Your task to perform on an android device: open app "File Manager" (install if not already installed) Image 0: 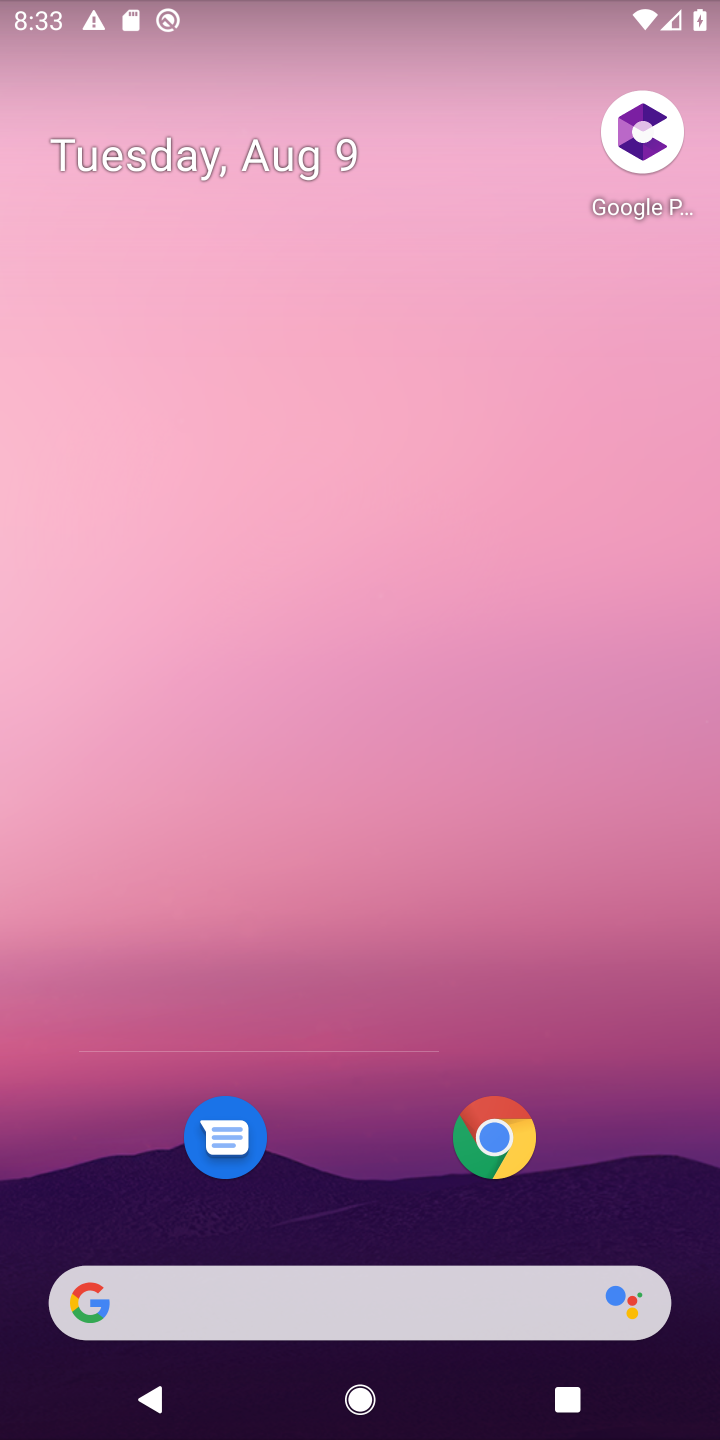
Step 0: press home button
Your task to perform on an android device: open app "File Manager" (install if not already installed) Image 1: 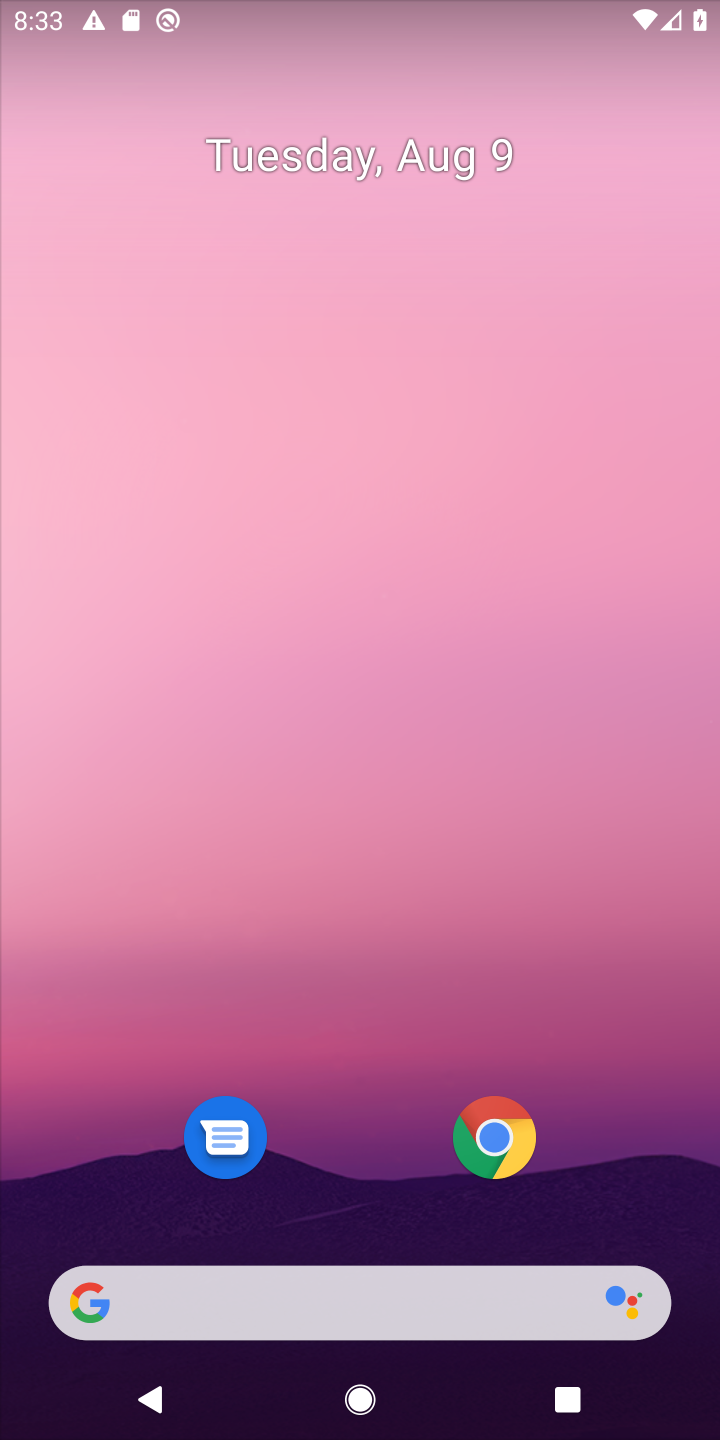
Step 1: drag from (581, 895) to (620, 107)
Your task to perform on an android device: open app "File Manager" (install if not already installed) Image 2: 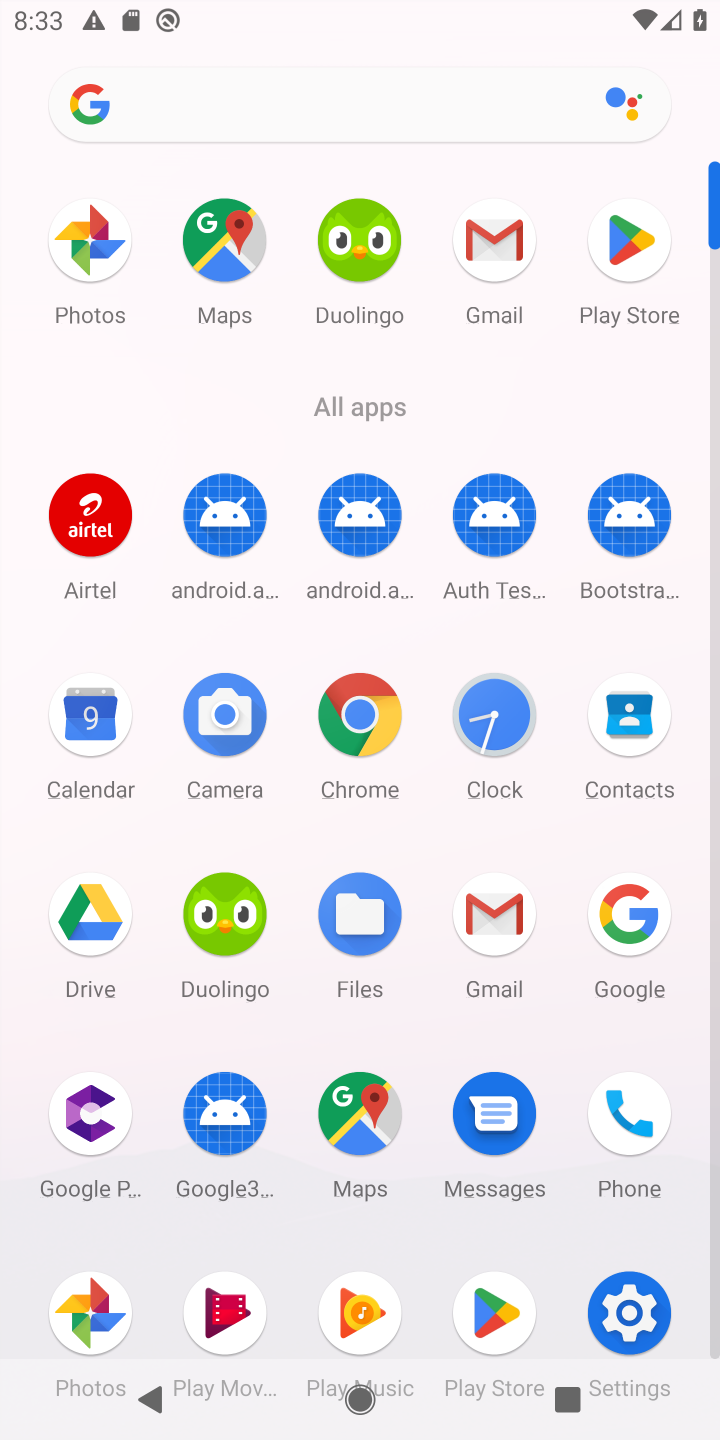
Step 2: click (617, 232)
Your task to perform on an android device: open app "File Manager" (install if not already installed) Image 3: 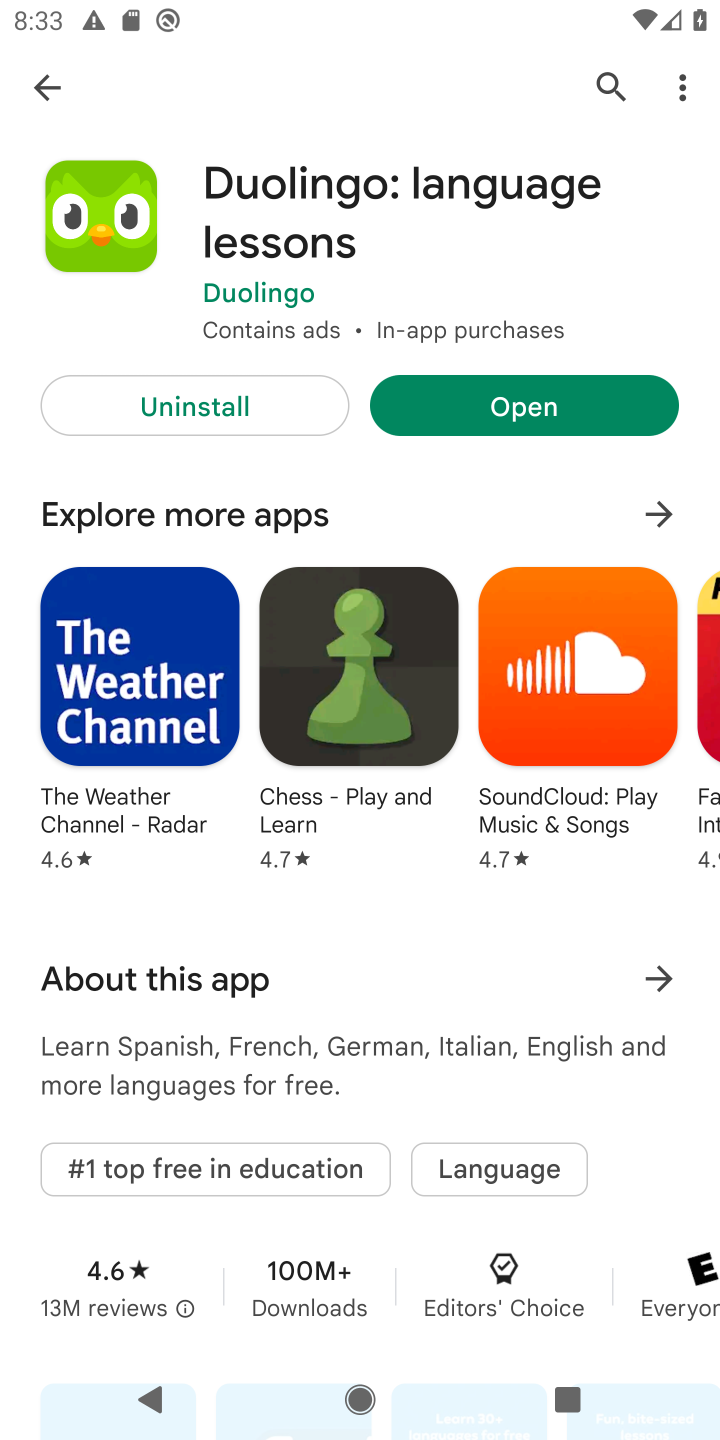
Step 3: click (601, 90)
Your task to perform on an android device: open app "File Manager" (install if not already installed) Image 4: 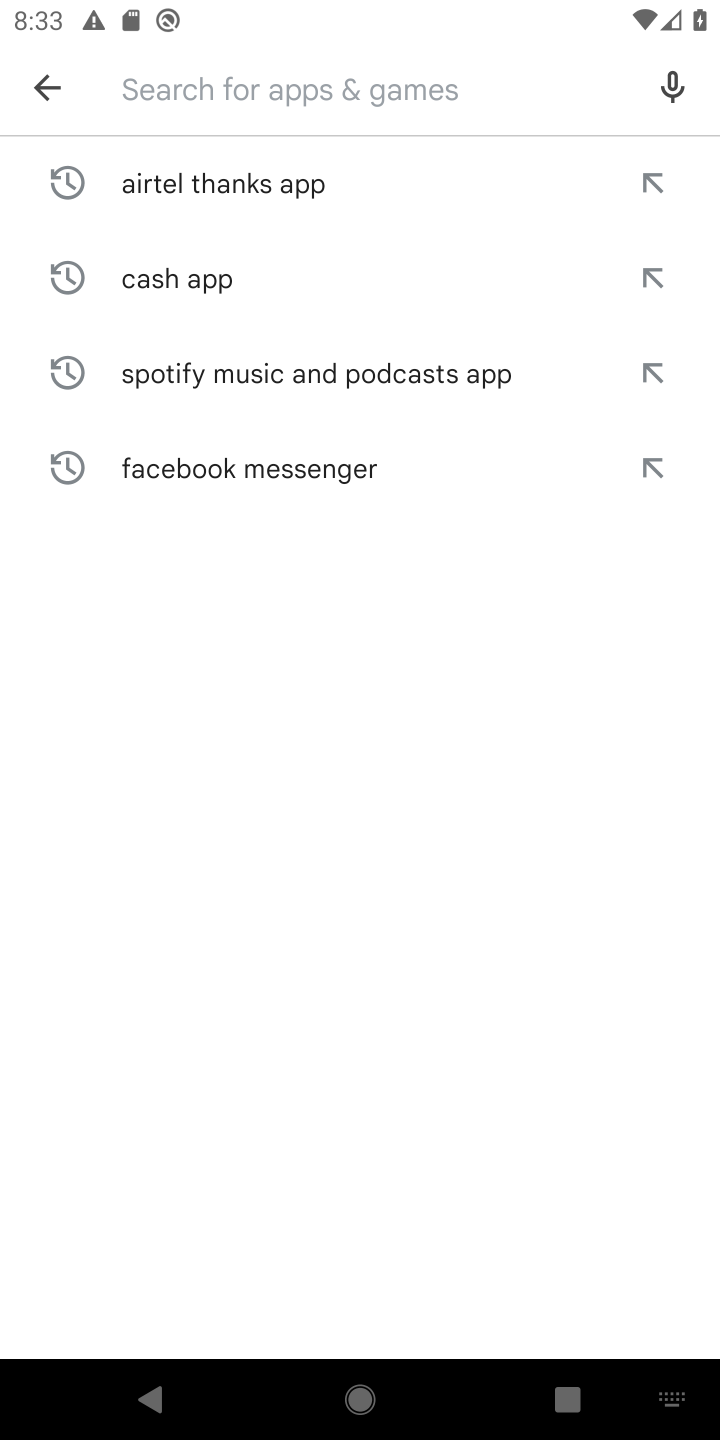
Step 4: type "file manager"
Your task to perform on an android device: open app "File Manager" (install if not already installed) Image 5: 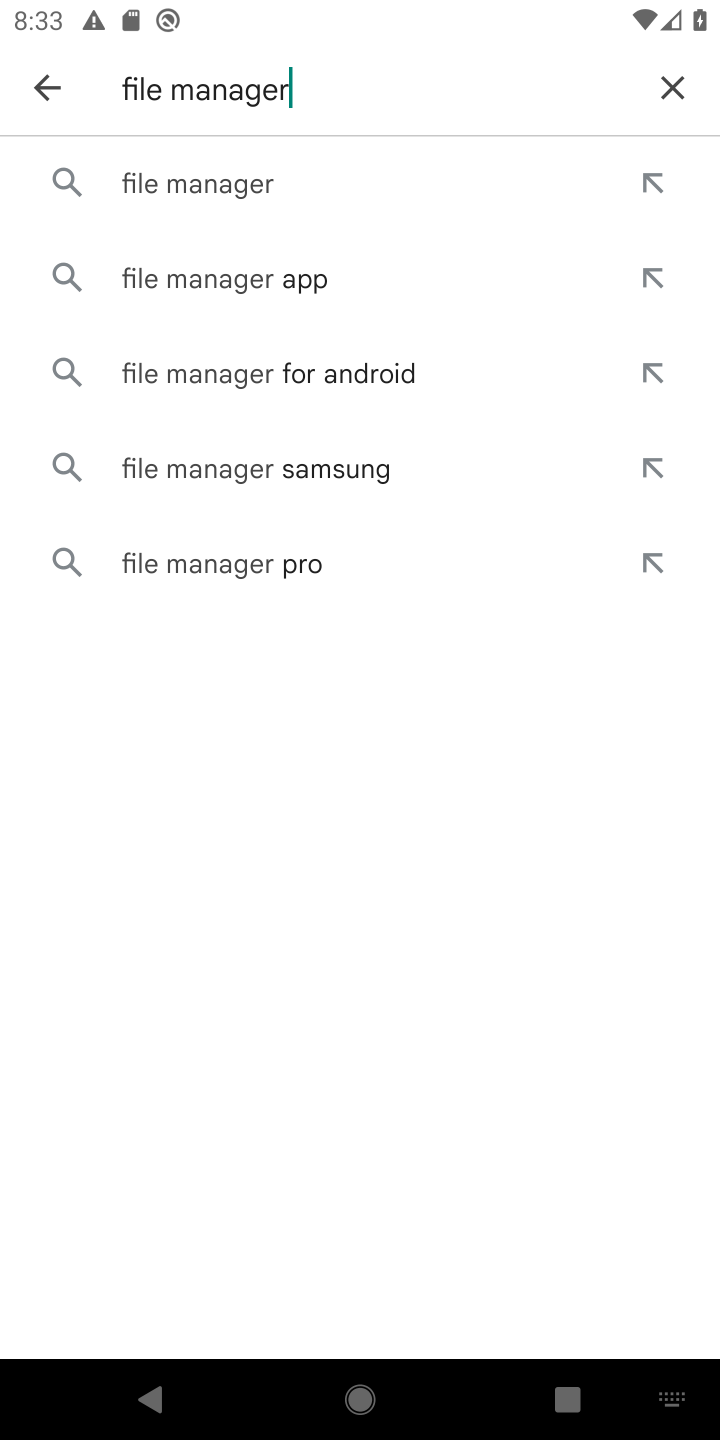
Step 5: click (329, 274)
Your task to perform on an android device: open app "File Manager" (install if not already installed) Image 6: 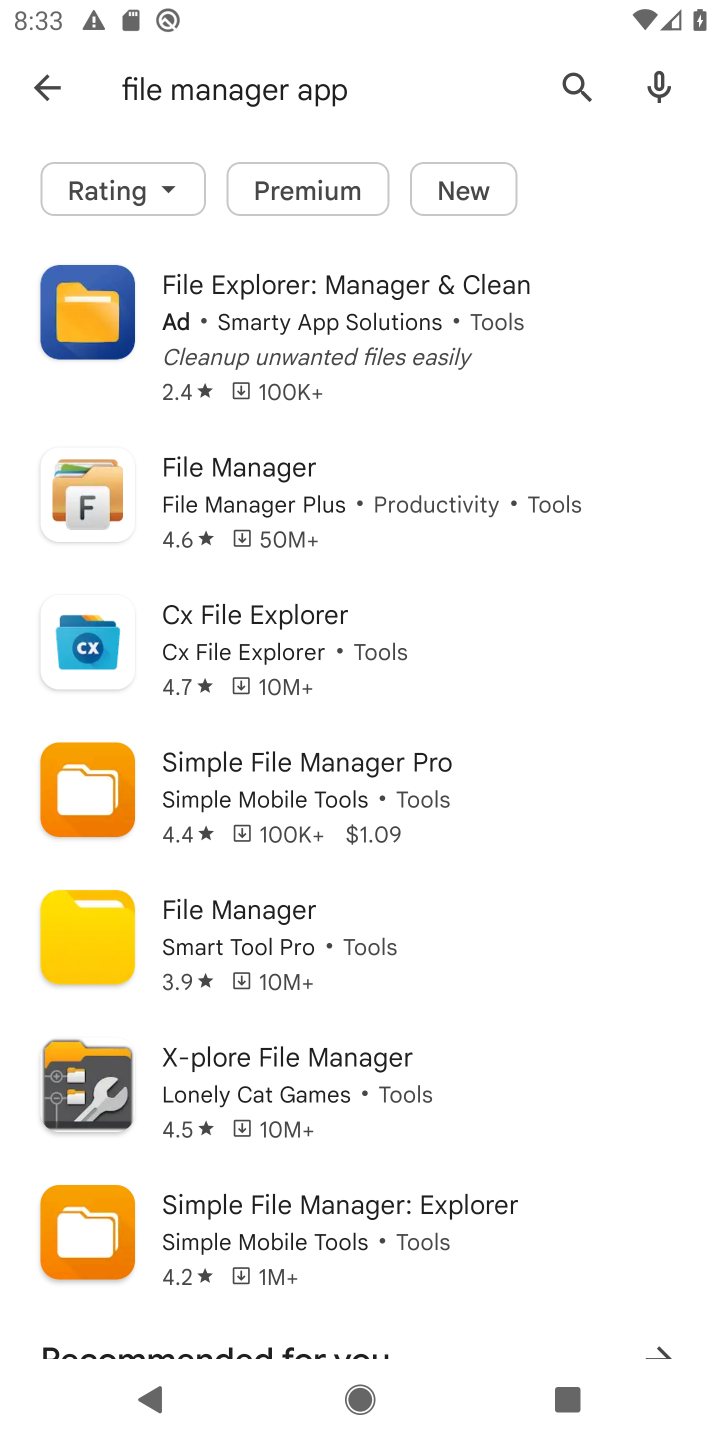
Step 6: task complete